Your task to perform on an android device: add a contact Image 0: 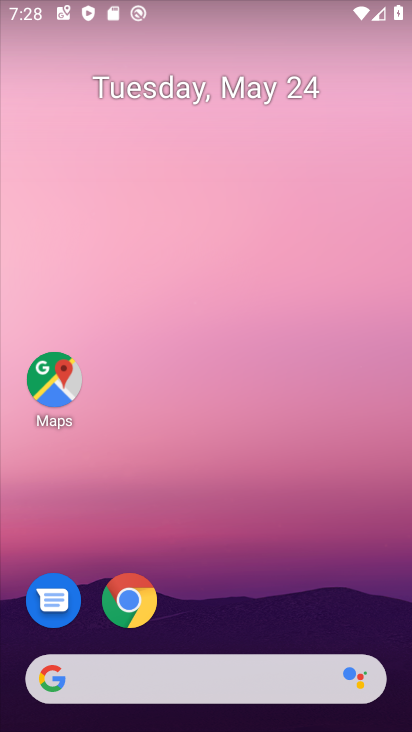
Step 0: drag from (227, 536) to (279, 70)
Your task to perform on an android device: add a contact Image 1: 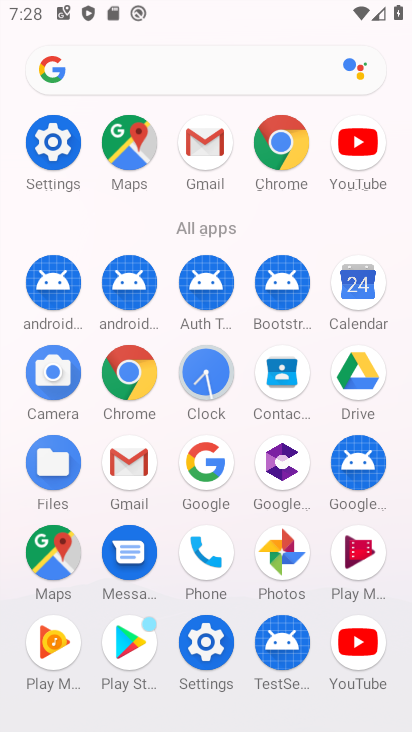
Step 1: click (275, 371)
Your task to perform on an android device: add a contact Image 2: 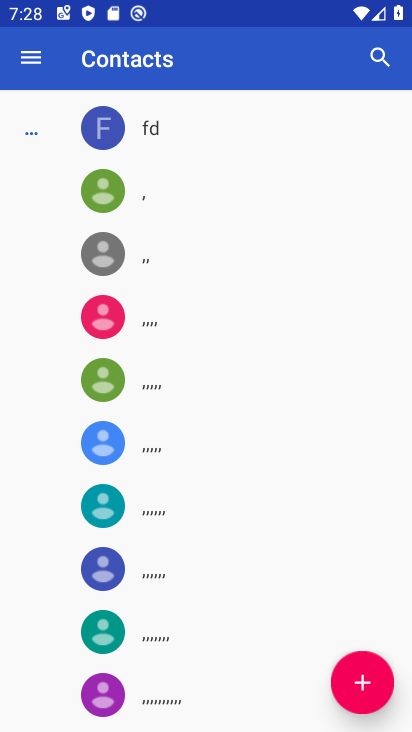
Step 2: click (356, 674)
Your task to perform on an android device: add a contact Image 3: 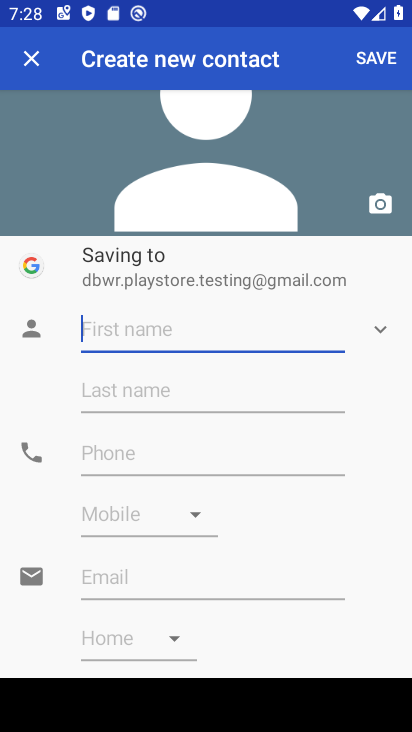
Step 3: click (103, 330)
Your task to perform on an android device: add a contact Image 4: 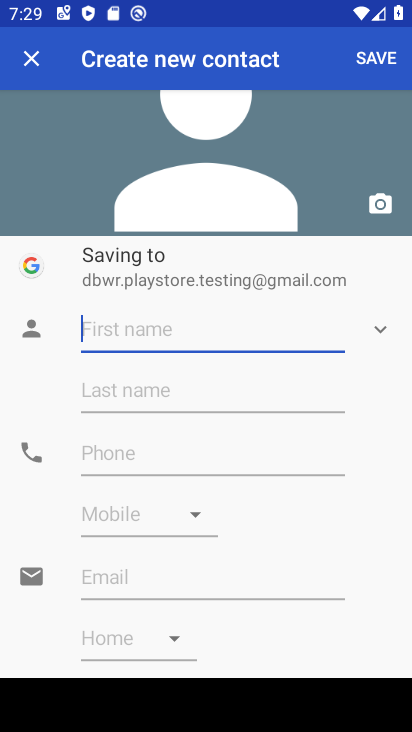
Step 4: type "gvgc"
Your task to perform on an android device: add a contact Image 5: 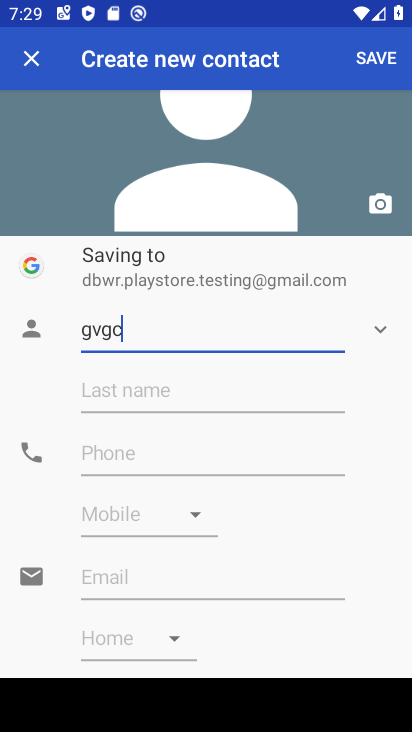
Step 5: click (139, 446)
Your task to perform on an android device: add a contact Image 6: 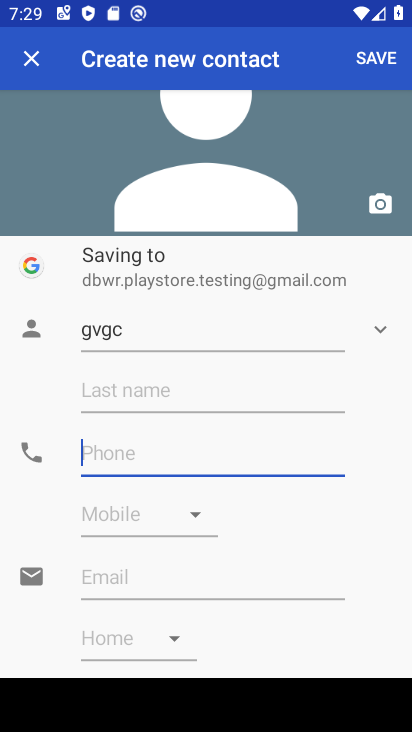
Step 6: type "8788"
Your task to perform on an android device: add a contact Image 7: 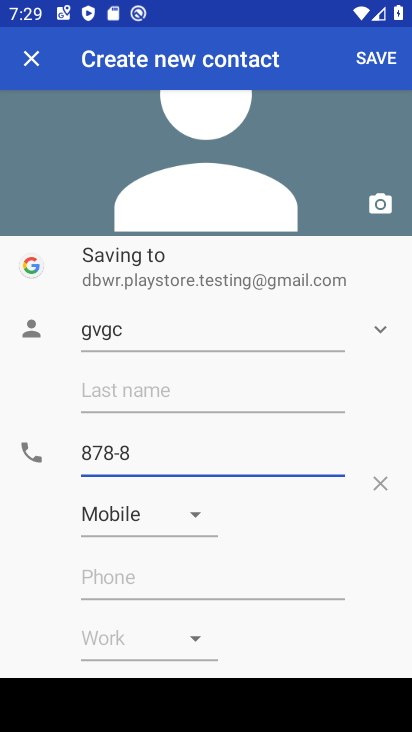
Step 7: click (393, 55)
Your task to perform on an android device: add a contact Image 8: 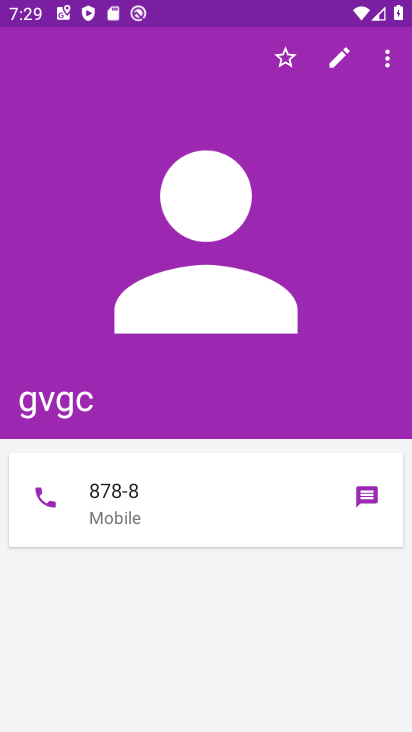
Step 8: task complete